Your task to perform on an android device: turn off location history Image 0: 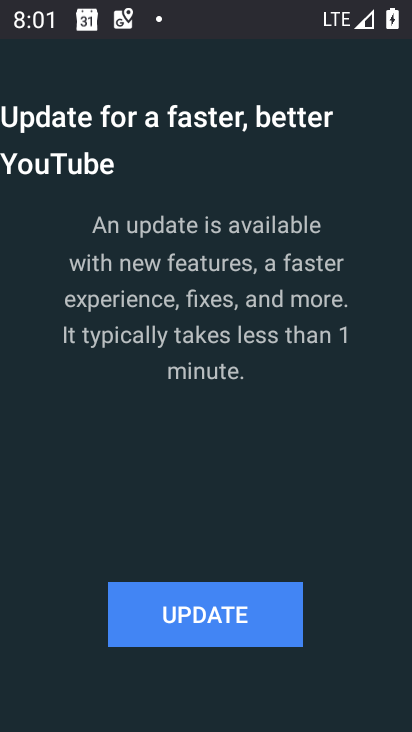
Step 0: press home button
Your task to perform on an android device: turn off location history Image 1: 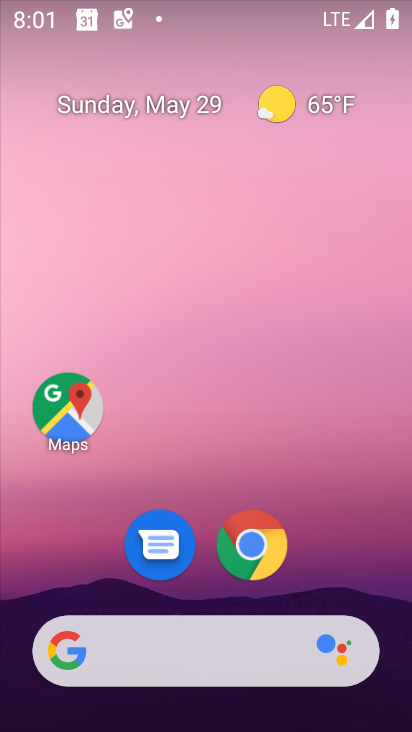
Step 1: drag from (213, 569) to (268, 152)
Your task to perform on an android device: turn off location history Image 2: 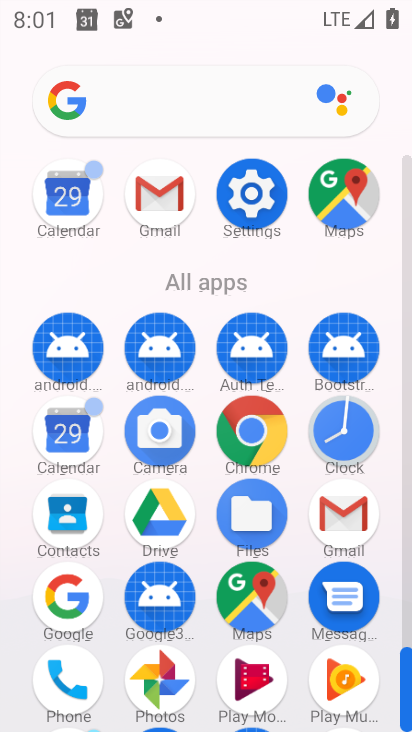
Step 2: click (256, 187)
Your task to perform on an android device: turn off location history Image 3: 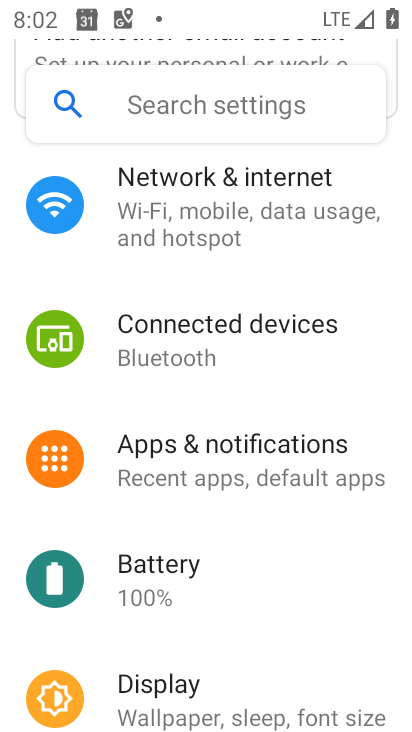
Step 3: drag from (202, 529) to (230, 218)
Your task to perform on an android device: turn off location history Image 4: 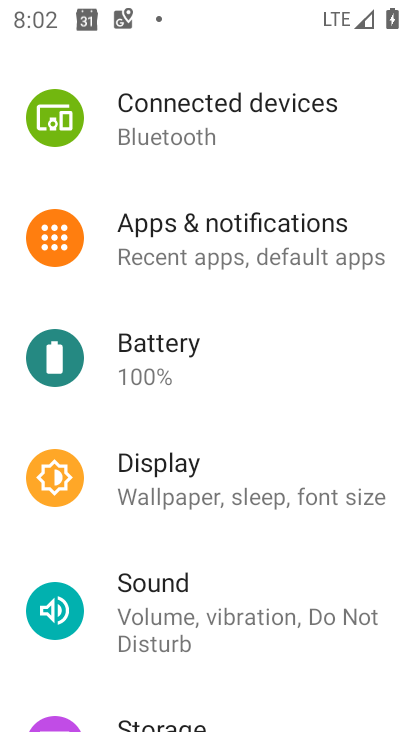
Step 4: drag from (229, 632) to (264, 239)
Your task to perform on an android device: turn off location history Image 5: 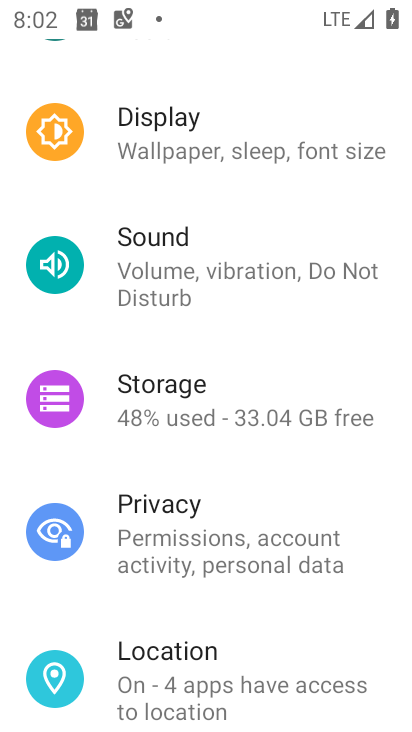
Step 5: click (181, 690)
Your task to perform on an android device: turn off location history Image 6: 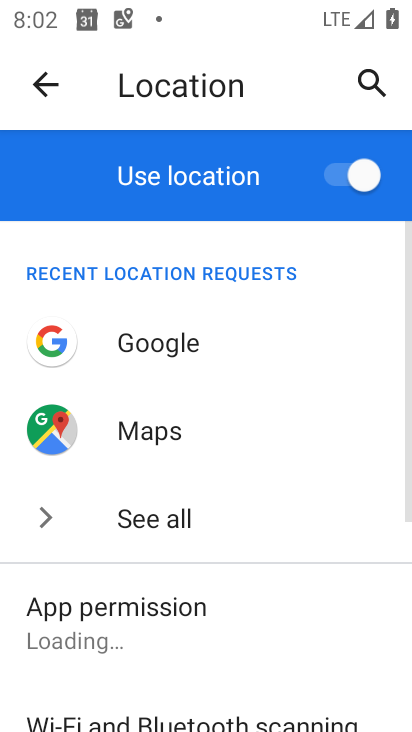
Step 6: click (347, 181)
Your task to perform on an android device: turn off location history Image 7: 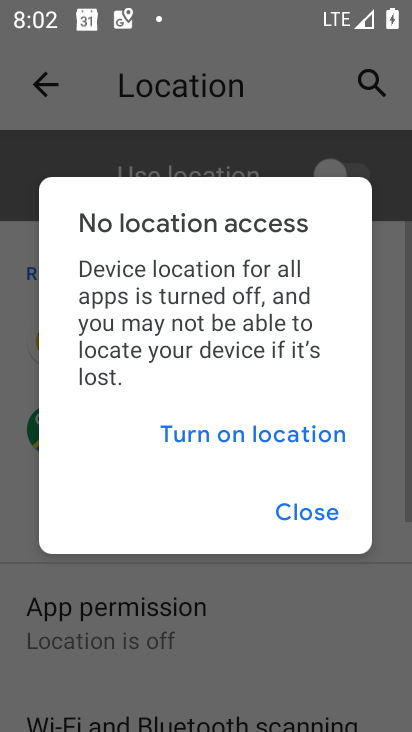
Step 7: task complete